Your task to perform on an android device: check the backup settings in the google photos Image 0: 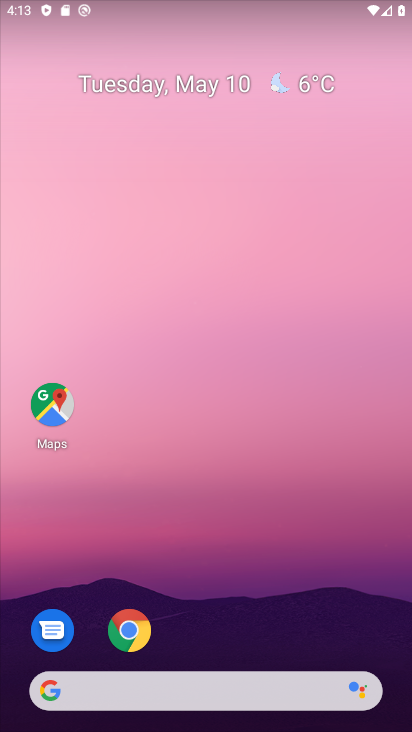
Step 0: drag from (294, 619) to (264, 187)
Your task to perform on an android device: check the backup settings in the google photos Image 1: 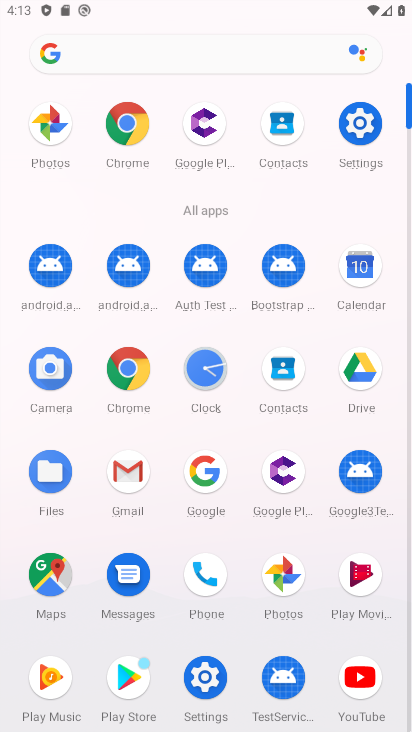
Step 1: click (287, 567)
Your task to perform on an android device: check the backup settings in the google photos Image 2: 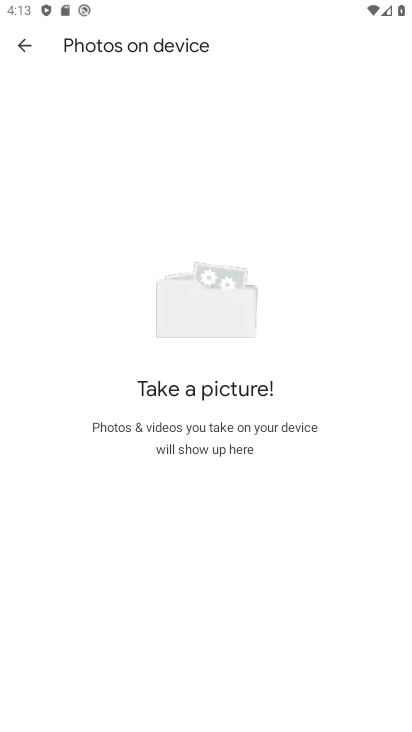
Step 2: click (27, 42)
Your task to perform on an android device: check the backup settings in the google photos Image 3: 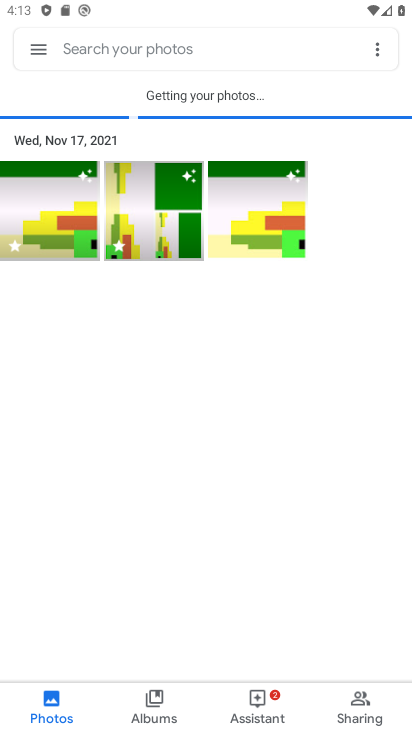
Step 3: click (379, 52)
Your task to perform on an android device: check the backup settings in the google photos Image 4: 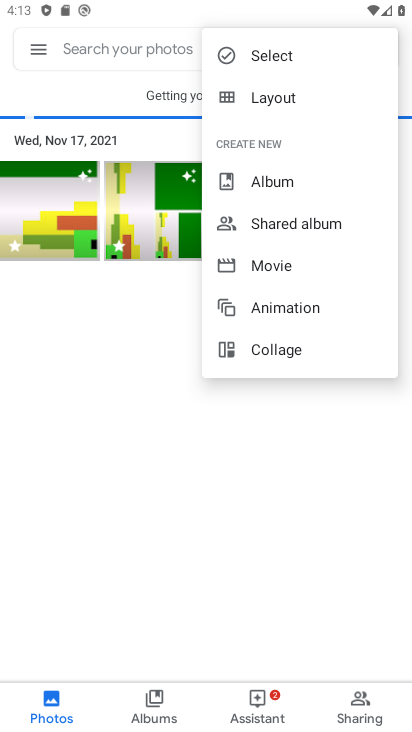
Step 4: click (238, 465)
Your task to perform on an android device: check the backup settings in the google photos Image 5: 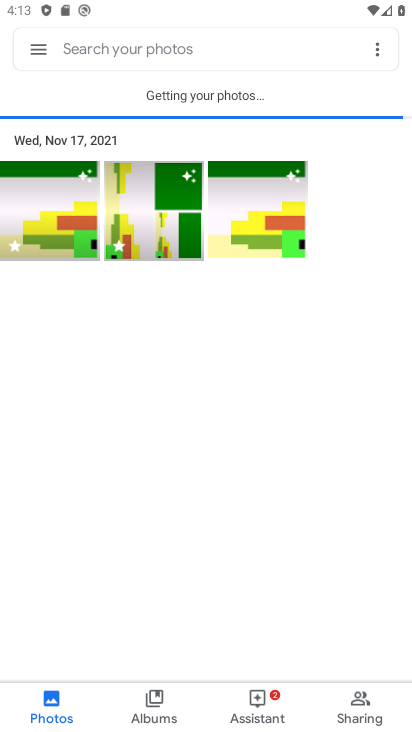
Step 5: click (38, 40)
Your task to perform on an android device: check the backup settings in the google photos Image 6: 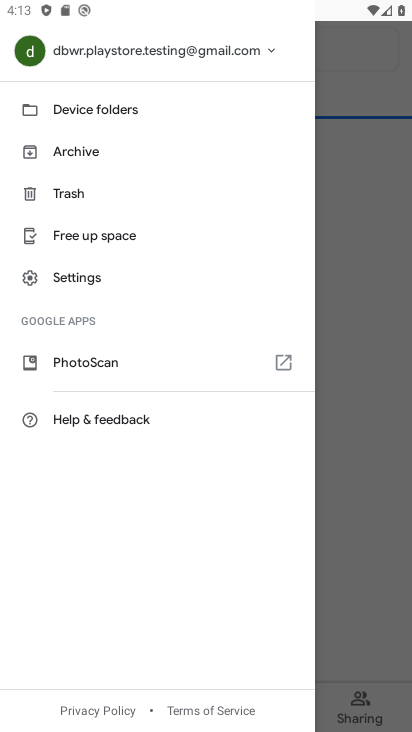
Step 6: click (92, 268)
Your task to perform on an android device: check the backup settings in the google photos Image 7: 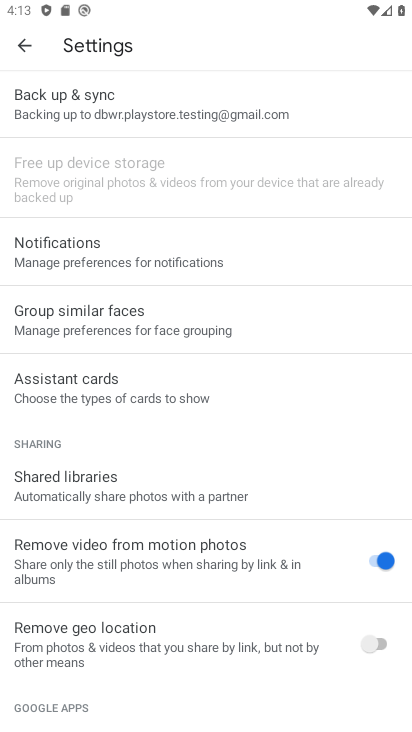
Step 7: click (155, 99)
Your task to perform on an android device: check the backup settings in the google photos Image 8: 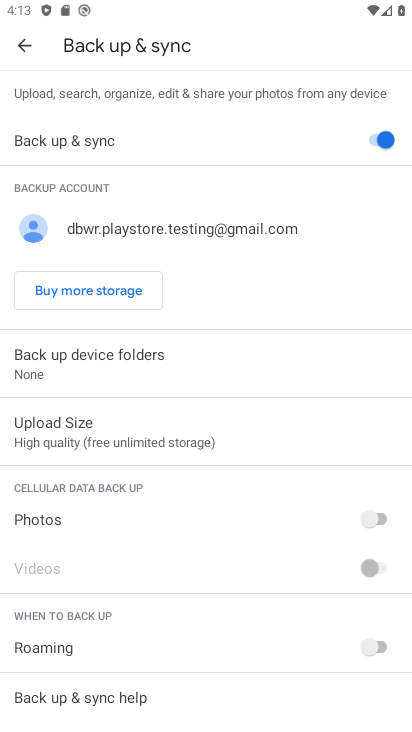
Step 8: task complete